Your task to perform on an android device: Check the news Image 0: 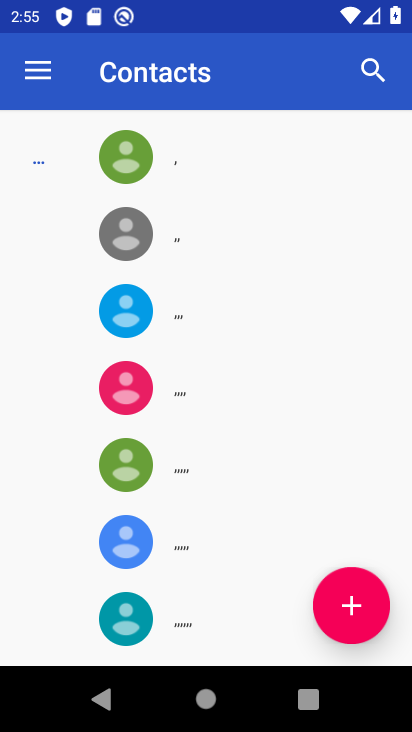
Step 0: press home button
Your task to perform on an android device: Check the news Image 1: 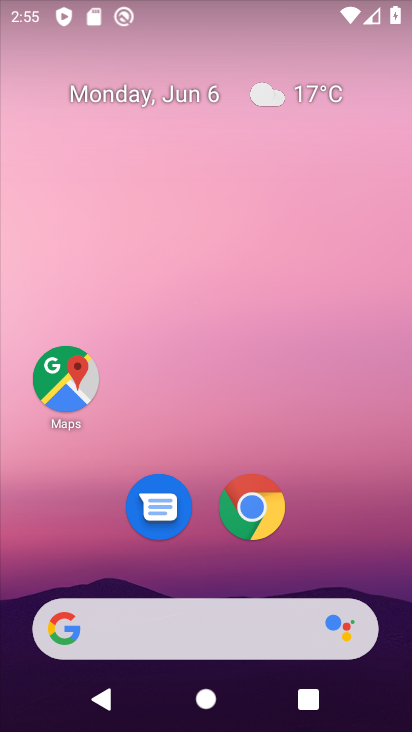
Step 1: click (158, 636)
Your task to perform on an android device: Check the news Image 2: 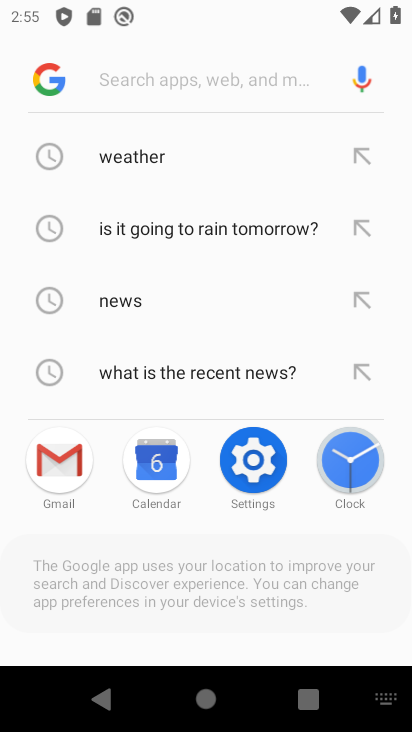
Step 2: click (116, 297)
Your task to perform on an android device: Check the news Image 3: 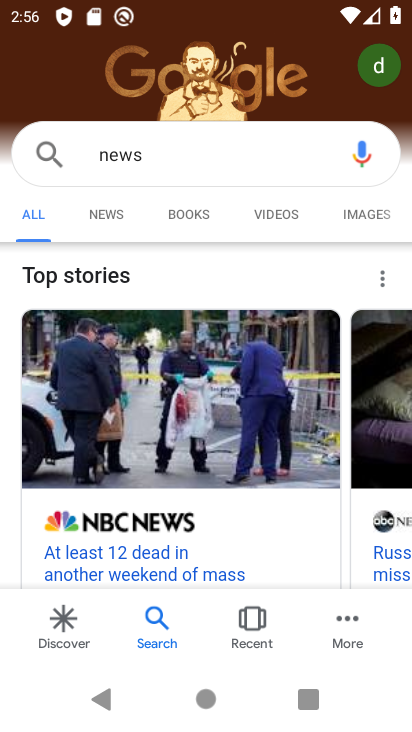
Step 3: task complete